Your task to perform on an android device: turn on airplane mode Image 0: 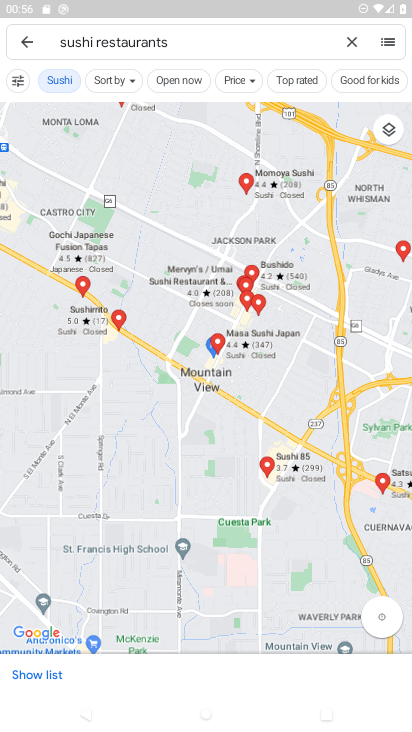
Step 0: press home button
Your task to perform on an android device: turn on airplane mode Image 1: 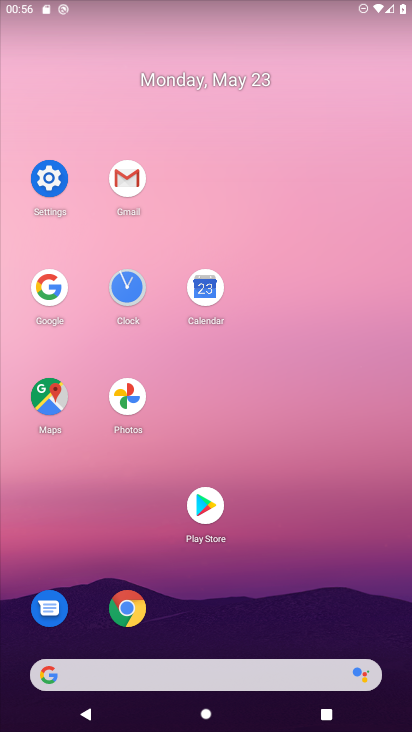
Step 1: click (56, 179)
Your task to perform on an android device: turn on airplane mode Image 2: 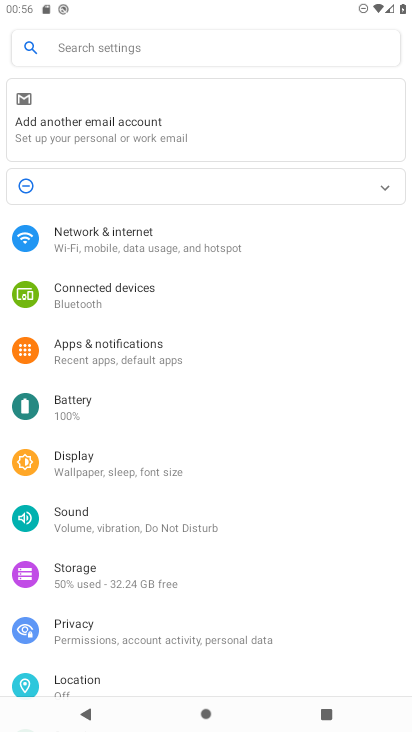
Step 2: click (157, 249)
Your task to perform on an android device: turn on airplane mode Image 3: 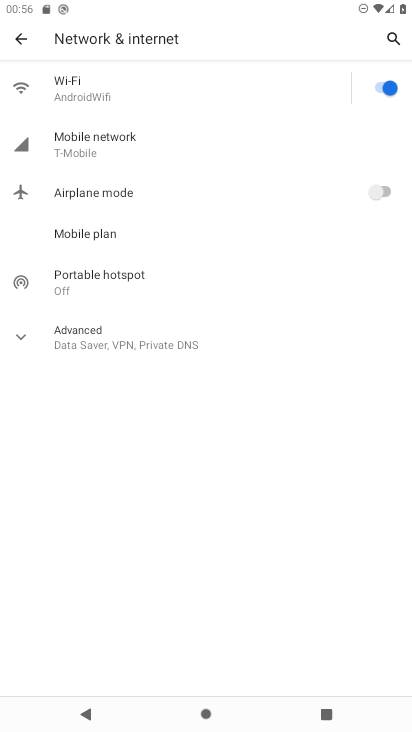
Step 3: click (388, 187)
Your task to perform on an android device: turn on airplane mode Image 4: 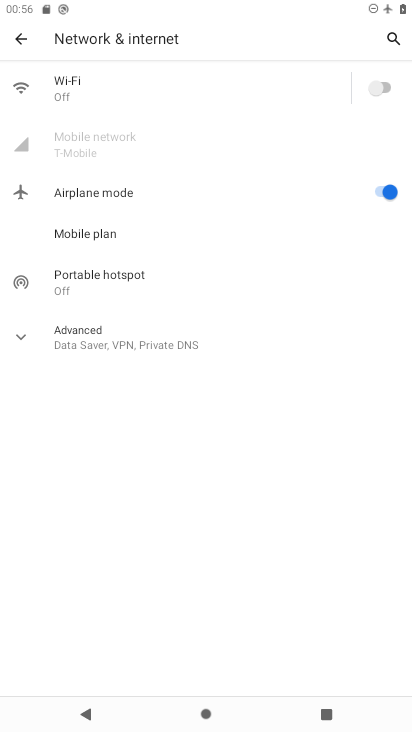
Step 4: task complete